Your task to perform on an android device: Search for vegetarian restaurants on Maps Image 0: 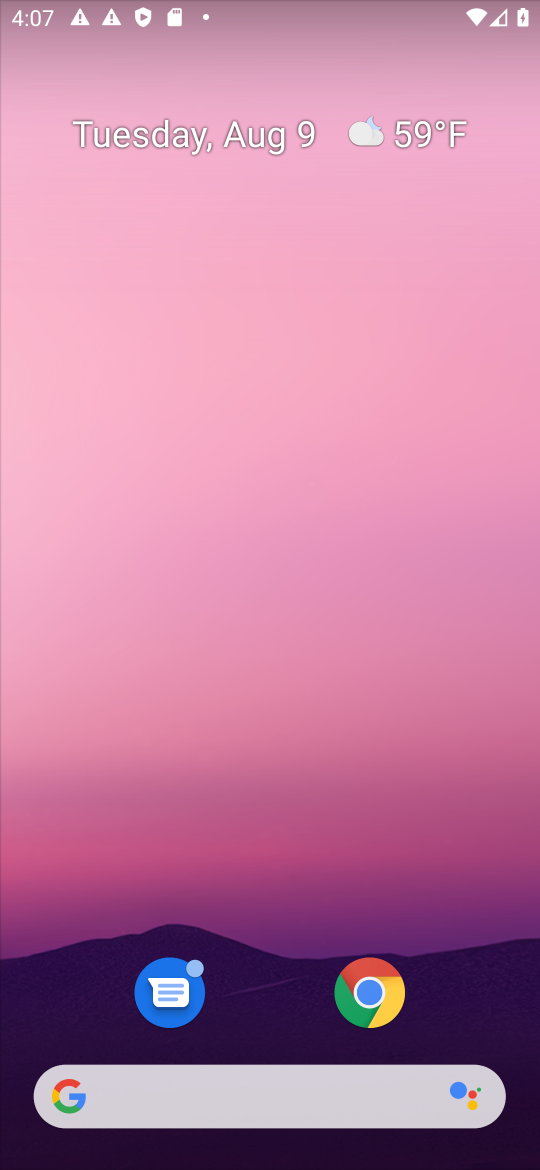
Step 0: press home button
Your task to perform on an android device: Search for vegetarian restaurants on Maps Image 1: 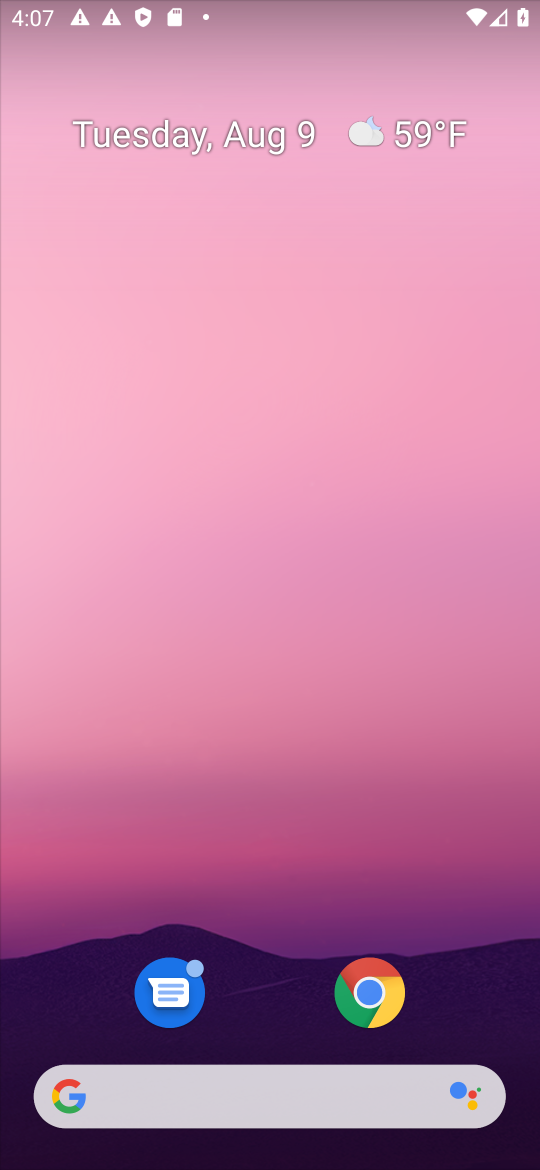
Step 1: drag from (263, 1110) to (210, 3)
Your task to perform on an android device: Search for vegetarian restaurants on Maps Image 2: 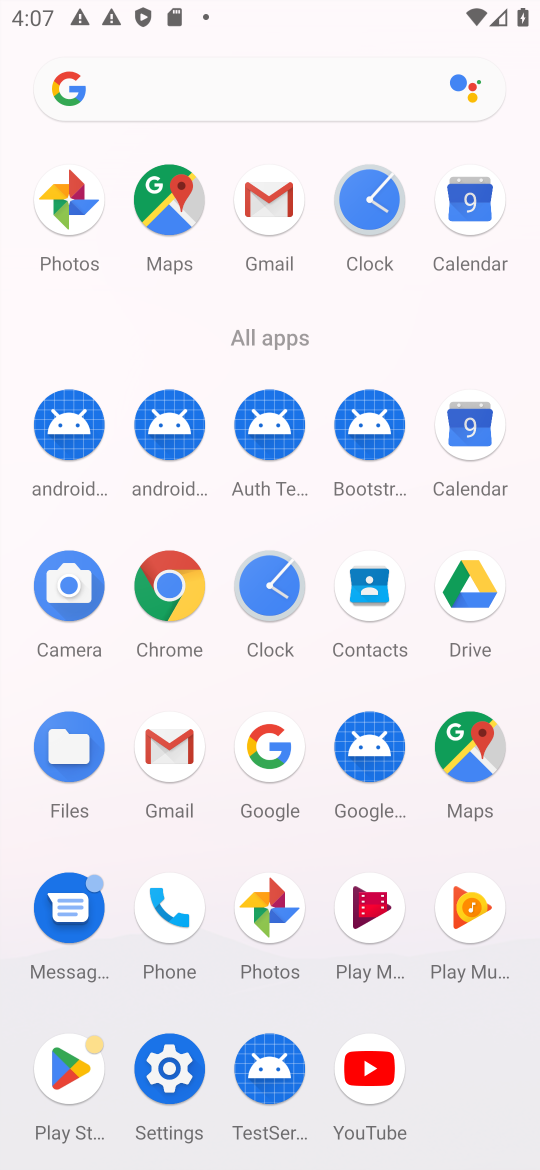
Step 2: click (246, 739)
Your task to perform on an android device: Search for vegetarian restaurants on Maps Image 3: 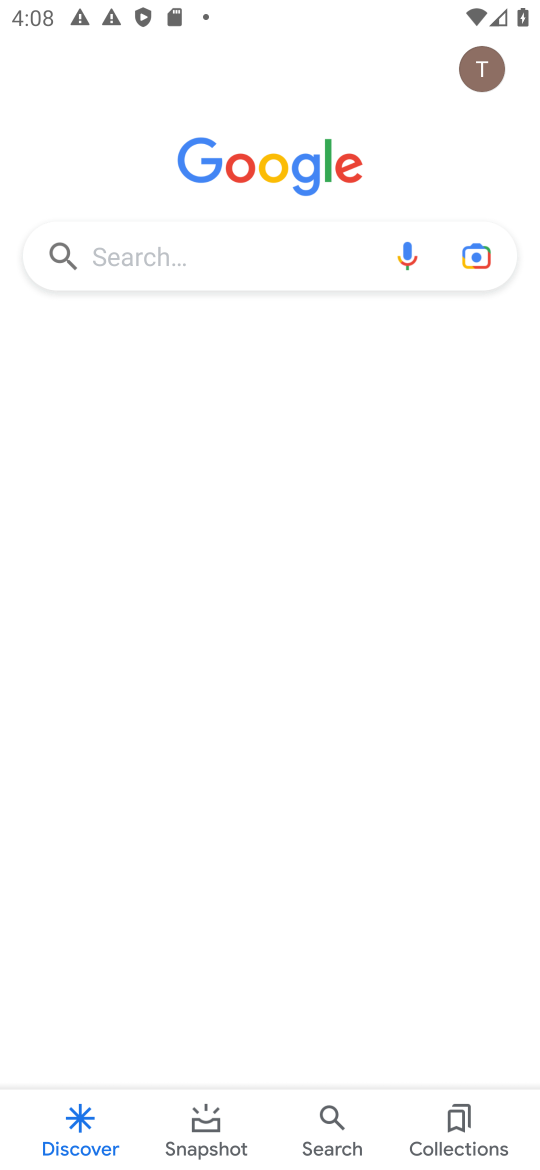
Step 3: click (281, 283)
Your task to perform on an android device: Search for vegetarian restaurants on Maps Image 4: 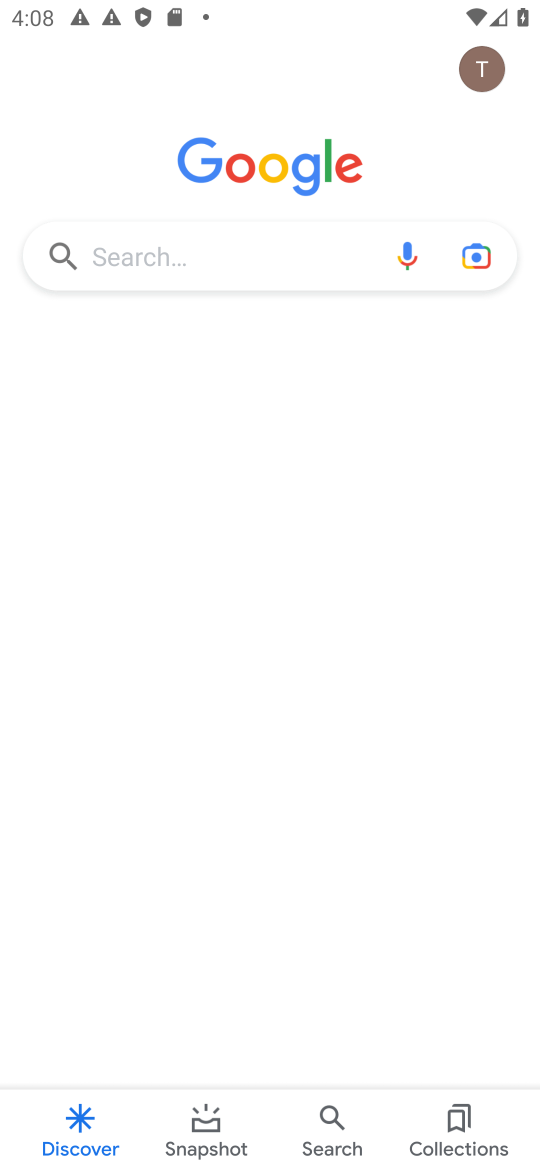
Step 4: click (281, 283)
Your task to perform on an android device: Search for vegetarian restaurants on Maps Image 5: 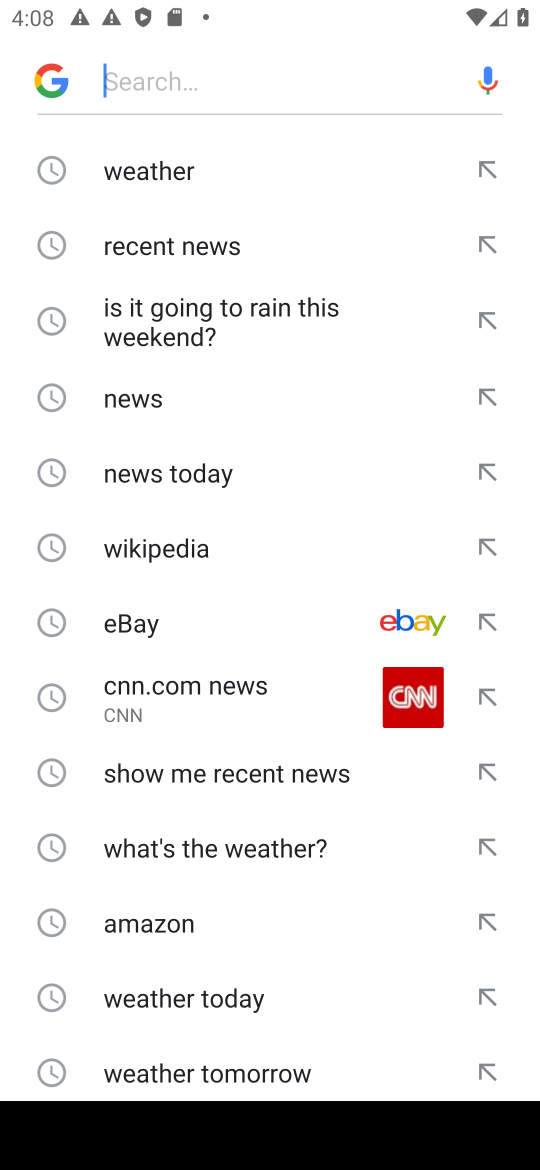
Step 5: type "check the weather"
Your task to perform on an android device: Search for vegetarian restaurants on Maps Image 6: 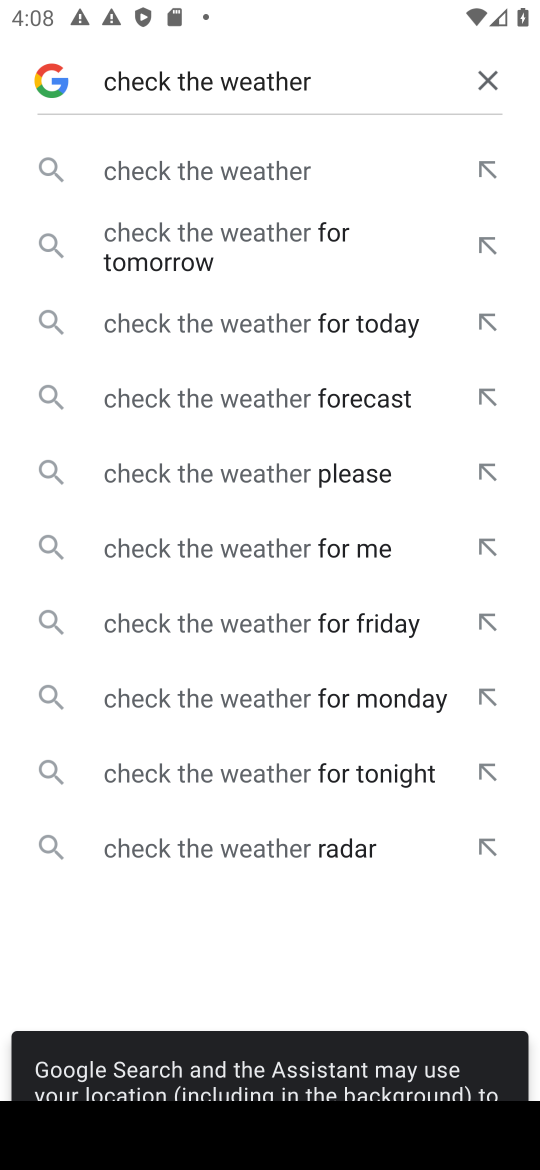
Step 6: click (235, 304)
Your task to perform on an android device: Search for vegetarian restaurants on Maps Image 7: 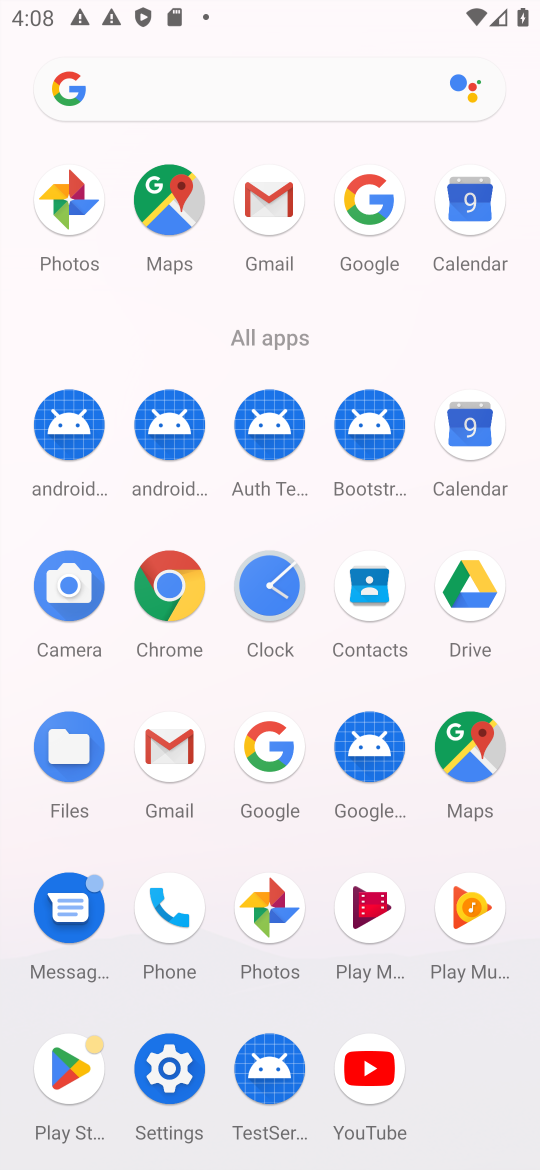
Step 7: click (478, 728)
Your task to perform on an android device: Search for vegetarian restaurants on Maps Image 8: 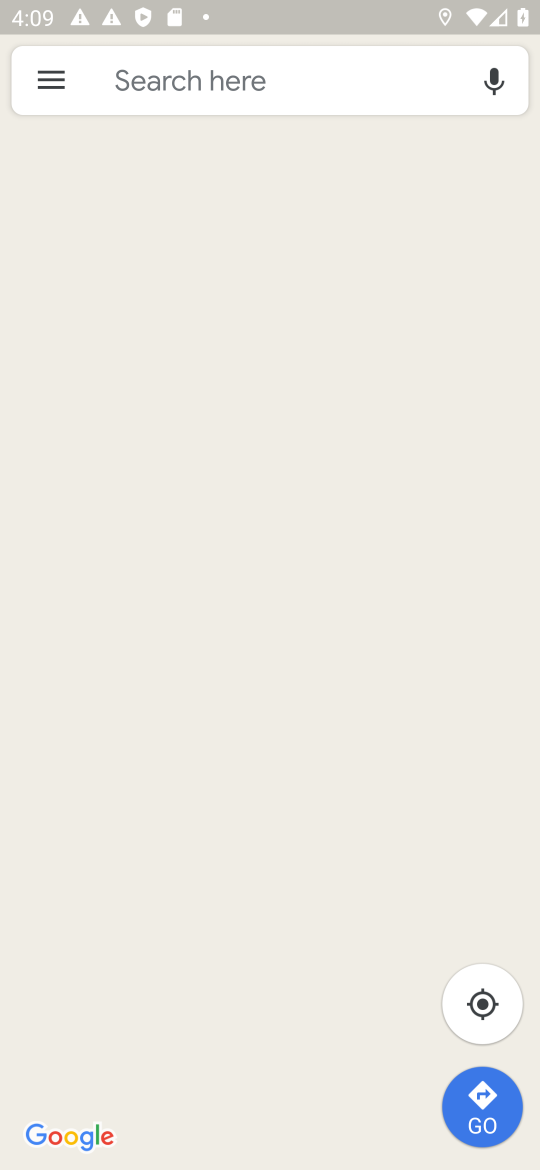
Step 8: click (236, 64)
Your task to perform on an android device: Search for vegetarian restaurants on Maps Image 9: 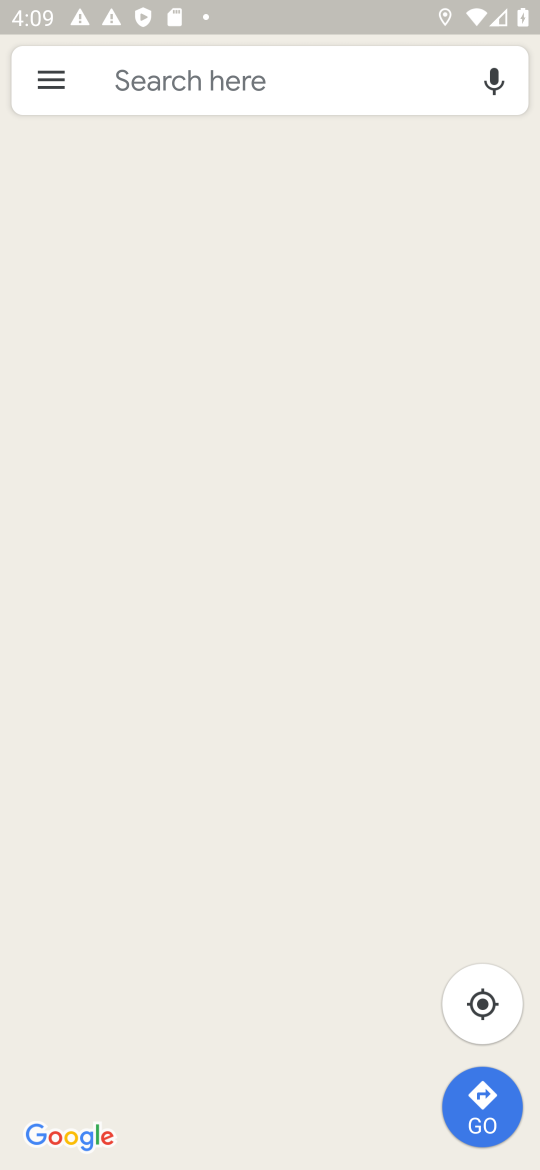
Step 9: click (236, 64)
Your task to perform on an android device: Search for vegetarian restaurants on Maps Image 10: 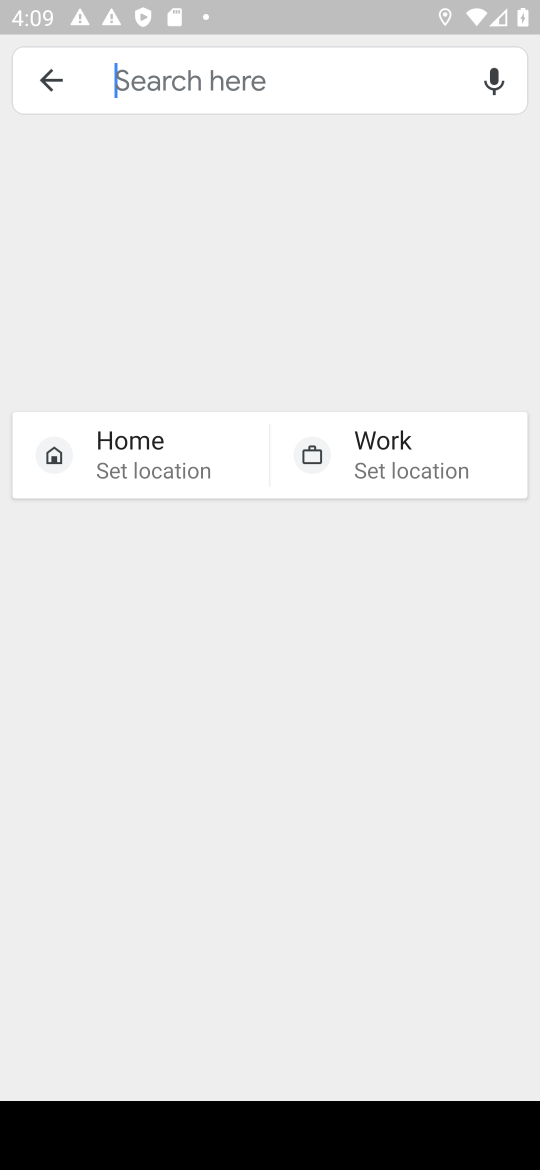
Step 10: type "vegetarian restaurant"
Your task to perform on an android device: Search for vegetarian restaurants on Maps Image 11: 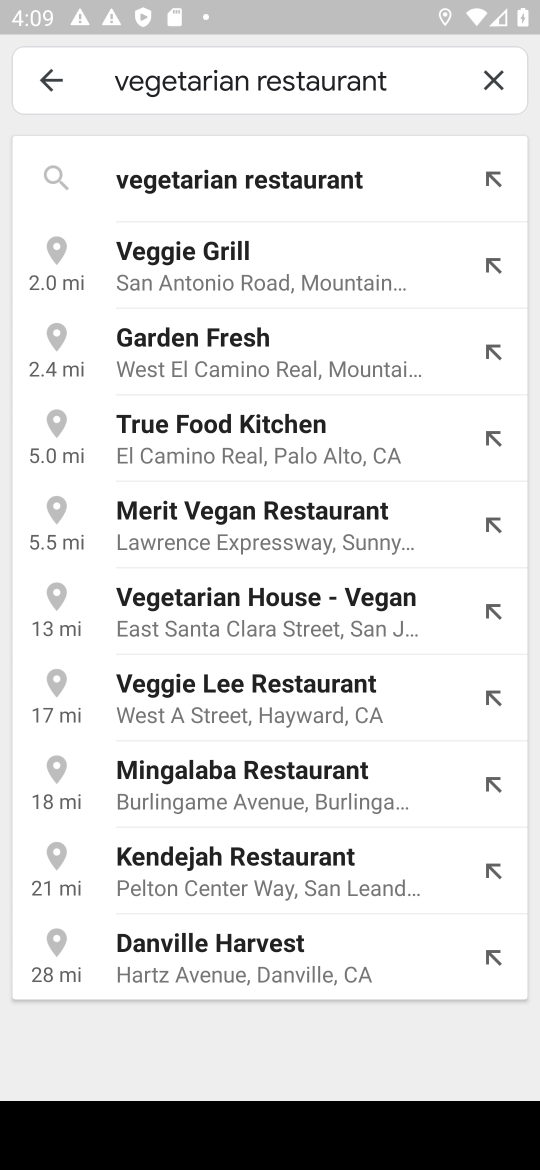
Step 11: click (319, 197)
Your task to perform on an android device: Search for vegetarian restaurants on Maps Image 12: 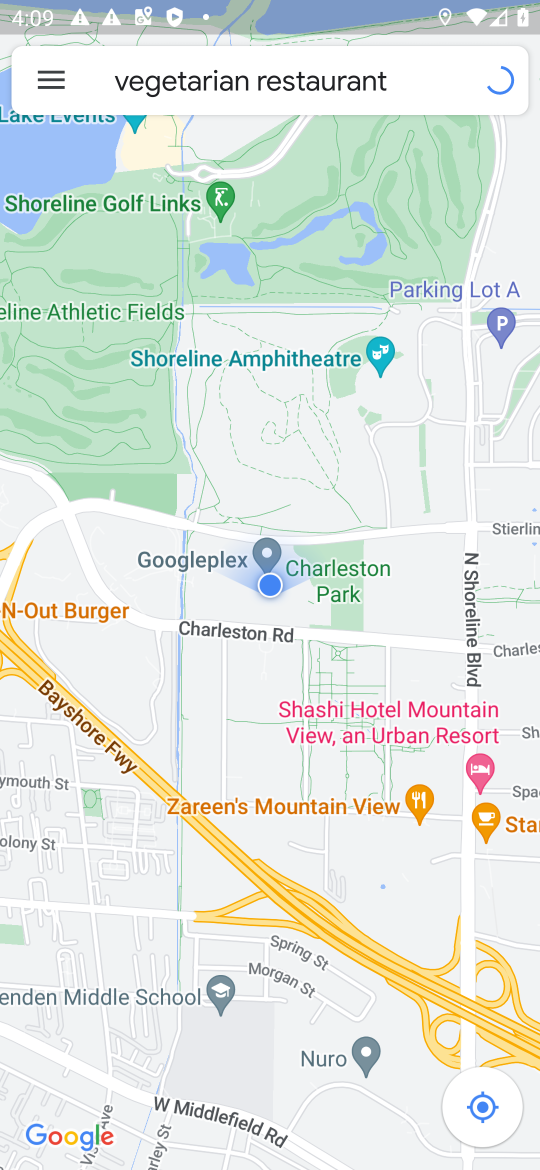
Step 12: task complete